Your task to perform on an android device: delete location history Image 0: 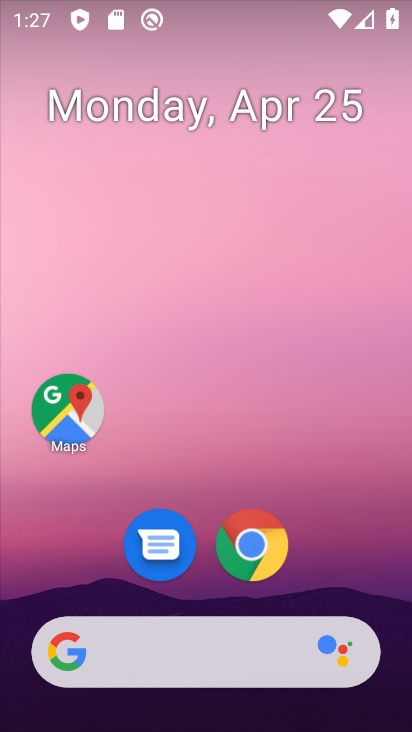
Step 0: drag from (283, 203) to (275, 45)
Your task to perform on an android device: delete location history Image 1: 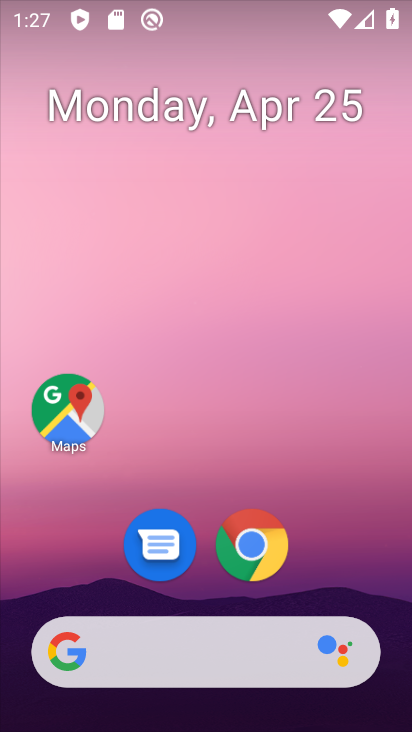
Step 1: drag from (305, 585) to (293, 106)
Your task to perform on an android device: delete location history Image 2: 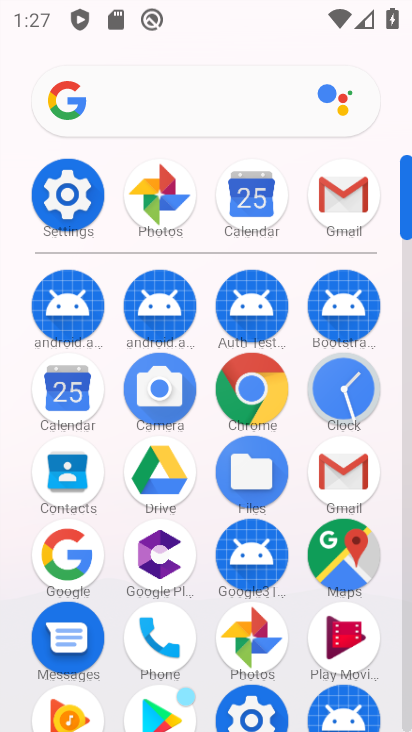
Step 2: click (255, 701)
Your task to perform on an android device: delete location history Image 3: 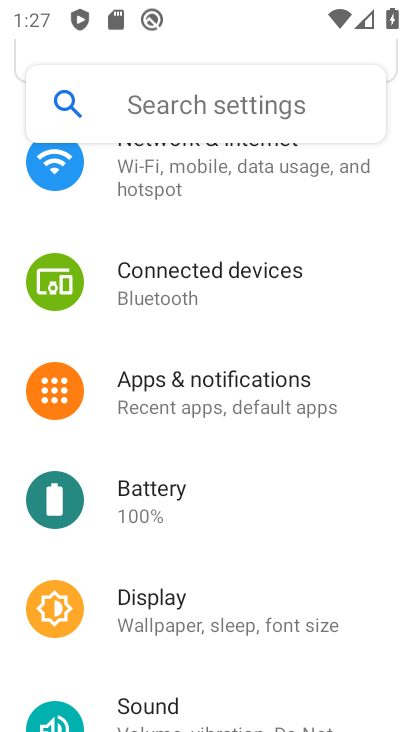
Step 3: drag from (243, 513) to (263, 204)
Your task to perform on an android device: delete location history Image 4: 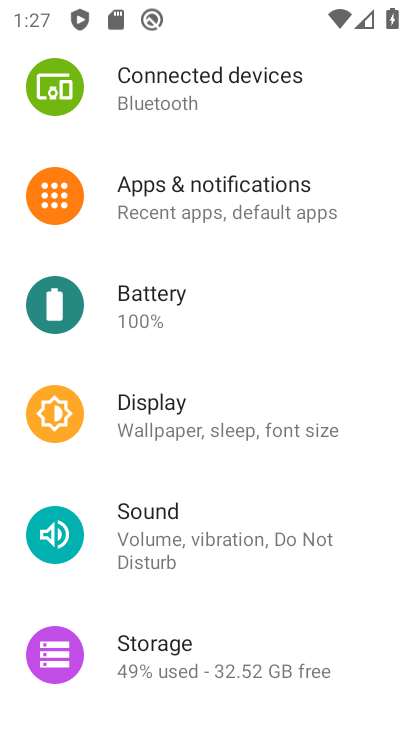
Step 4: drag from (243, 613) to (258, 283)
Your task to perform on an android device: delete location history Image 5: 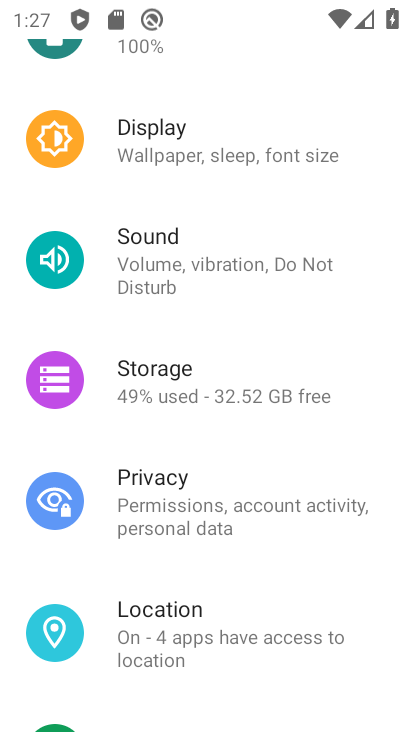
Step 5: click (229, 635)
Your task to perform on an android device: delete location history Image 6: 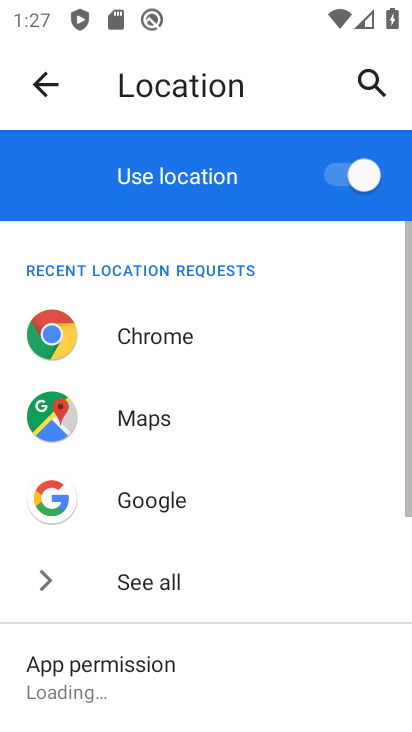
Step 6: drag from (277, 640) to (281, 252)
Your task to perform on an android device: delete location history Image 7: 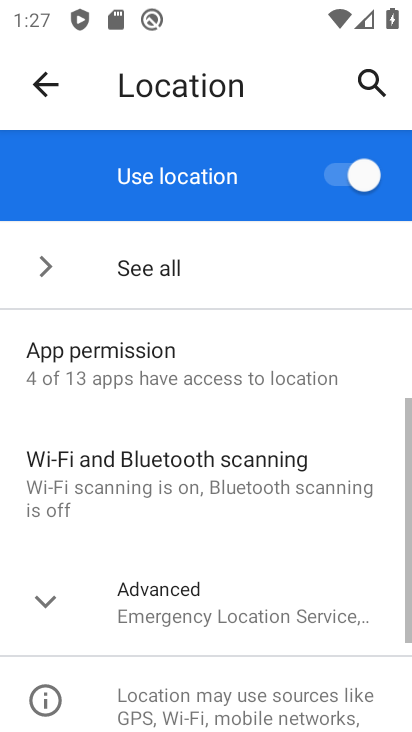
Step 7: click (242, 616)
Your task to perform on an android device: delete location history Image 8: 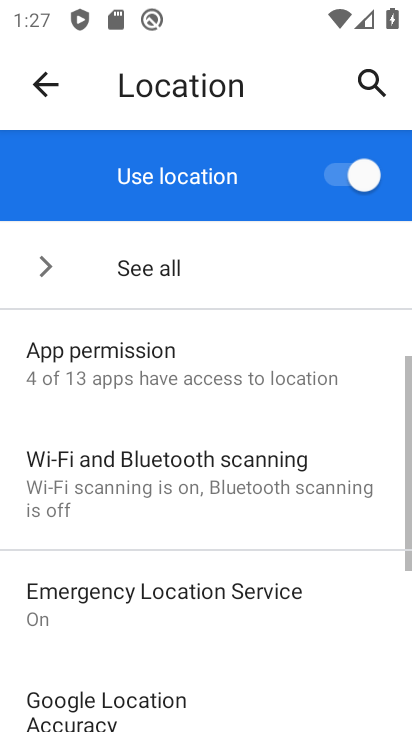
Step 8: drag from (254, 614) to (284, 272)
Your task to perform on an android device: delete location history Image 9: 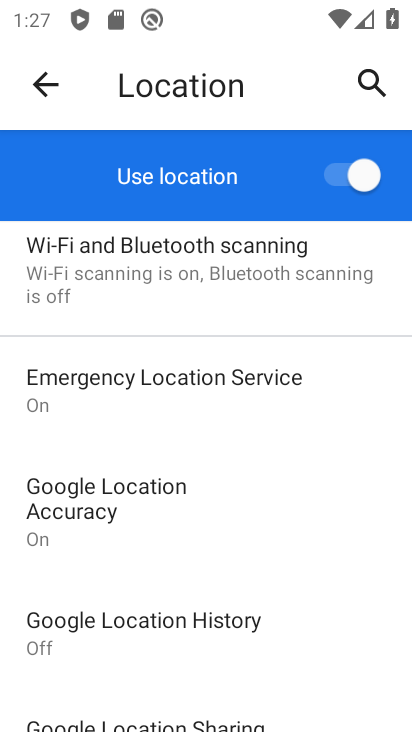
Step 9: click (166, 637)
Your task to perform on an android device: delete location history Image 10: 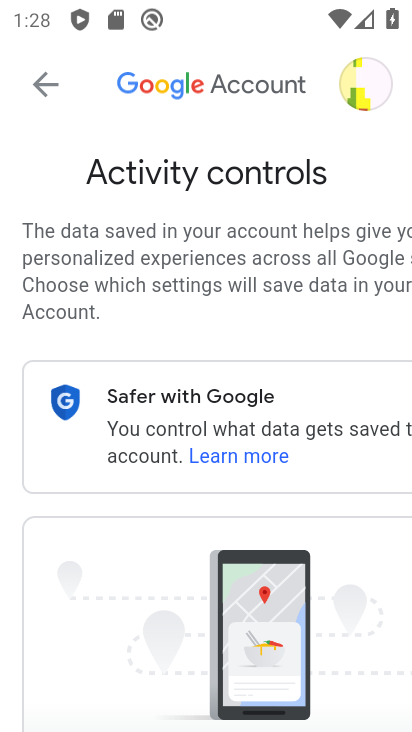
Step 10: drag from (314, 593) to (302, 251)
Your task to perform on an android device: delete location history Image 11: 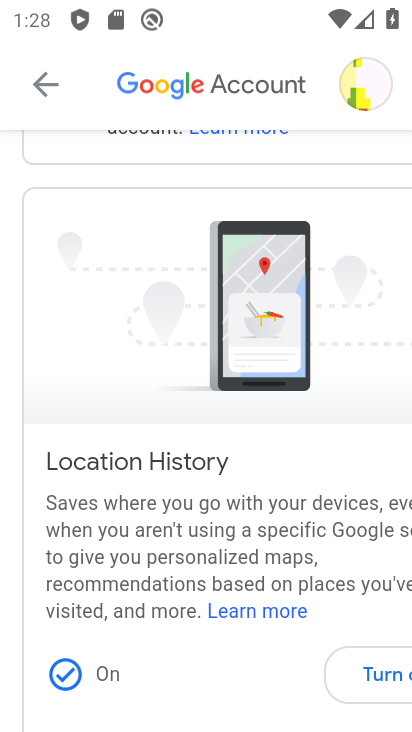
Step 11: drag from (230, 664) to (230, 252)
Your task to perform on an android device: delete location history Image 12: 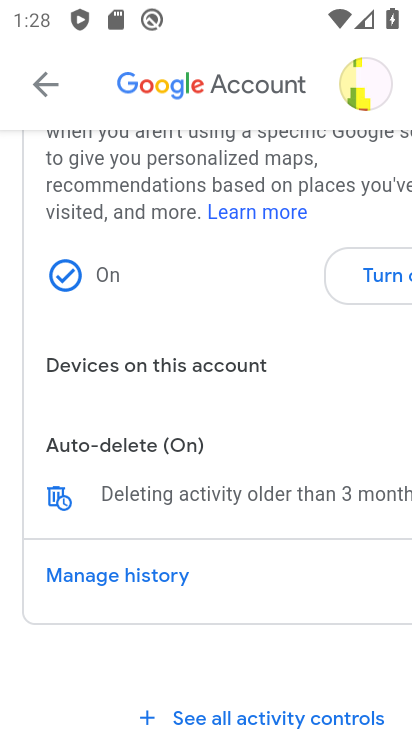
Step 12: click (152, 587)
Your task to perform on an android device: delete location history Image 13: 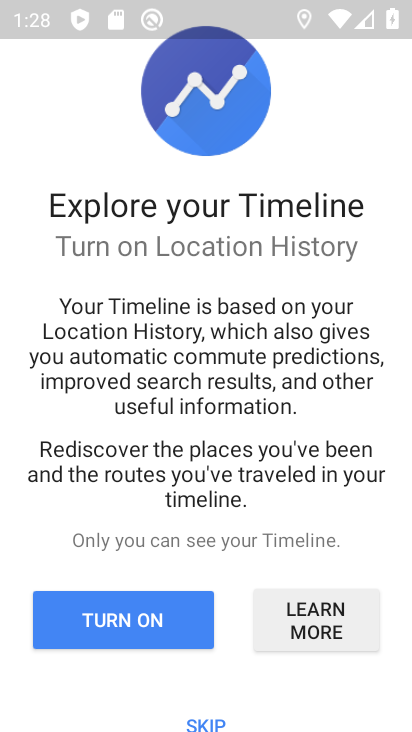
Step 13: click (215, 716)
Your task to perform on an android device: delete location history Image 14: 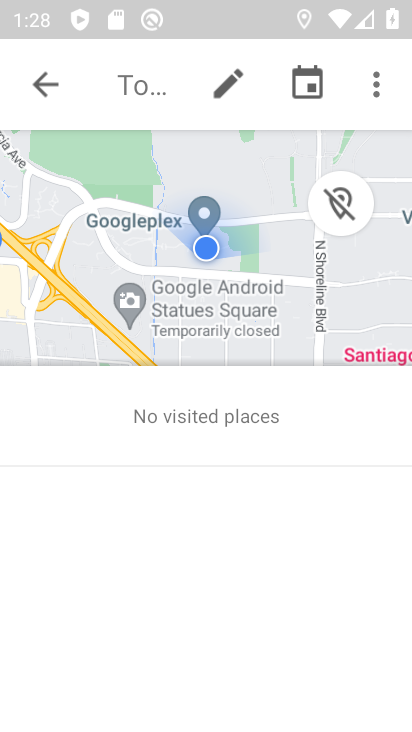
Step 14: click (377, 89)
Your task to perform on an android device: delete location history Image 15: 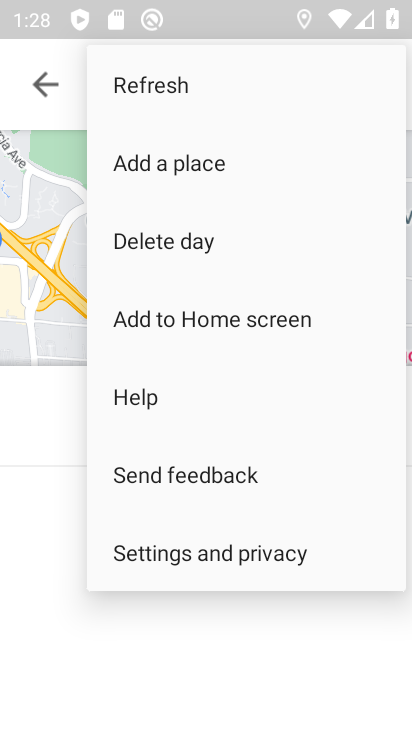
Step 15: click (220, 552)
Your task to perform on an android device: delete location history Image 16: 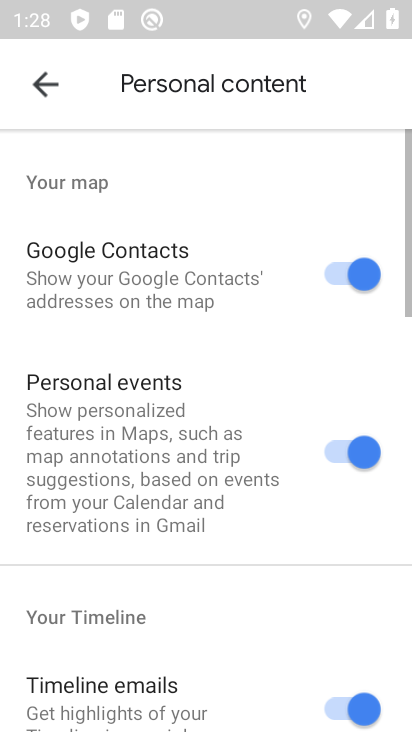
Step 16: drag from (248, 634) to (245, 284)
Your task to perform on an android device: delete location history Image 17: 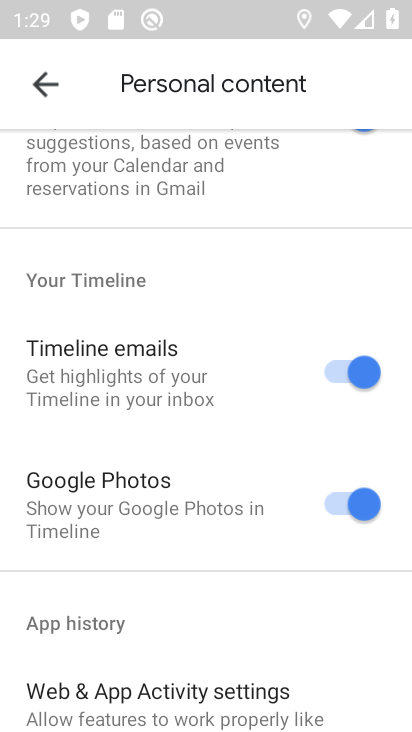
Step 17: drag from (244, 621) to (238, 315)
Your task to perform on an android device: delete location history Image 18: 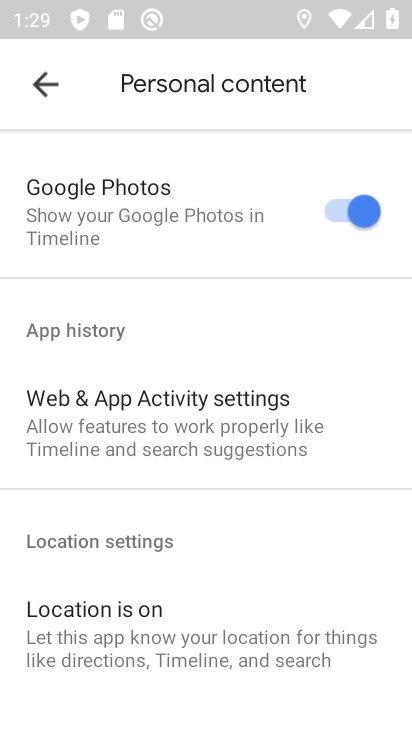
Step 18: drag from (277, 599) to (268, 269)
Your task to perform on an android device: delete location history Image 19: 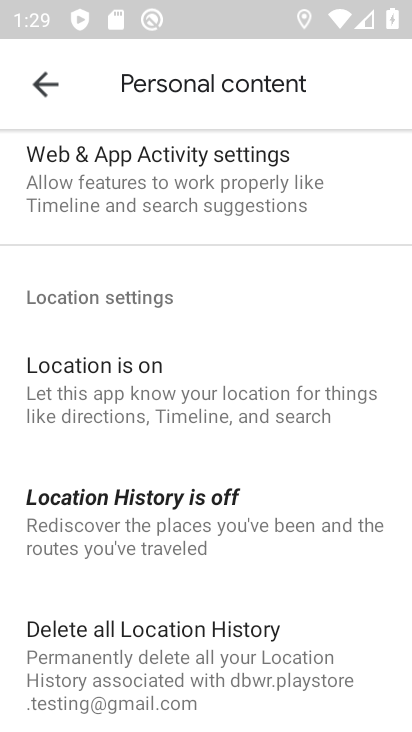
Step 19: click (235, 645)
Your task to perform on an android device: delete location history Image 20: 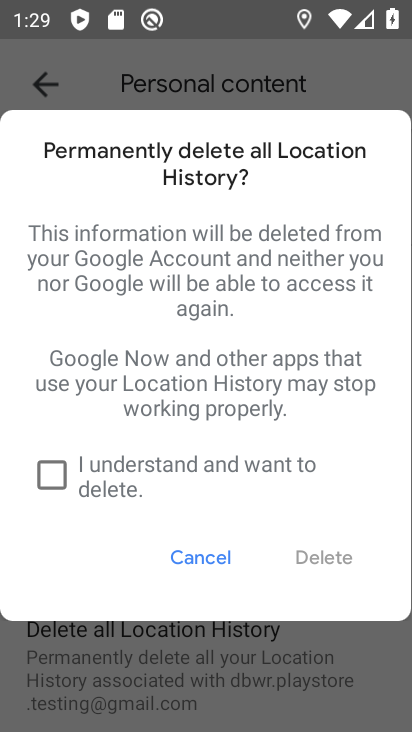
Step 20: click (48, 480)
Your task to perform on an android device: delete location history Image 21: 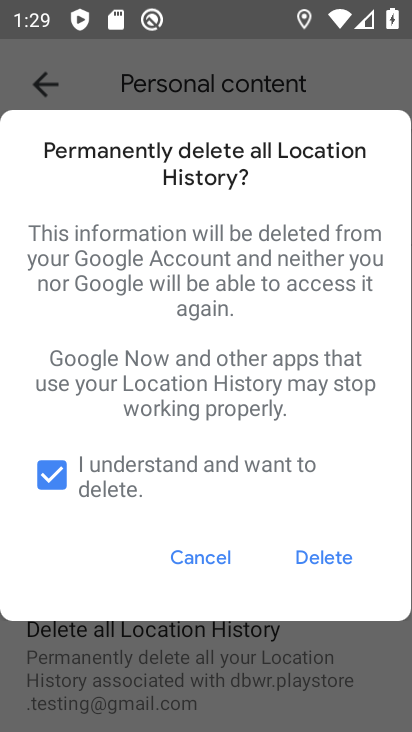
Step 21: click (313, 565)
Your task to perform on an android device: delete location history Image 22: 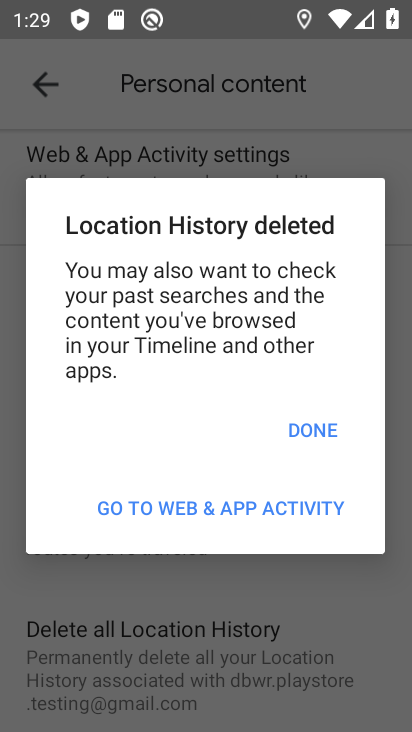
Step 22: click (313, 433)
Your task to perform on an android device: delete location history Image 23: 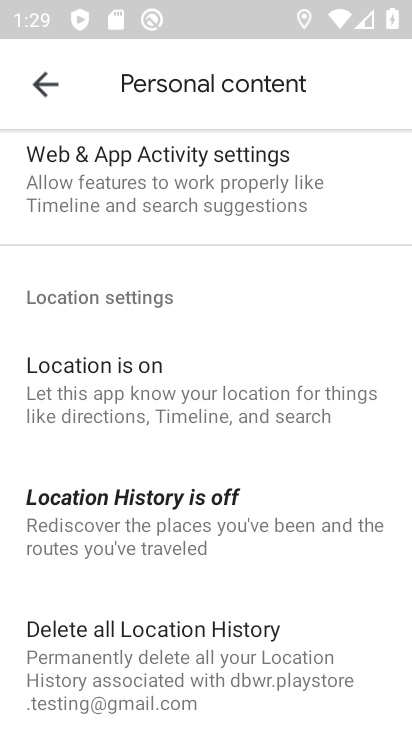
Step 23: task complete